Your task to perform on an android device: turn on wifi Image 0: 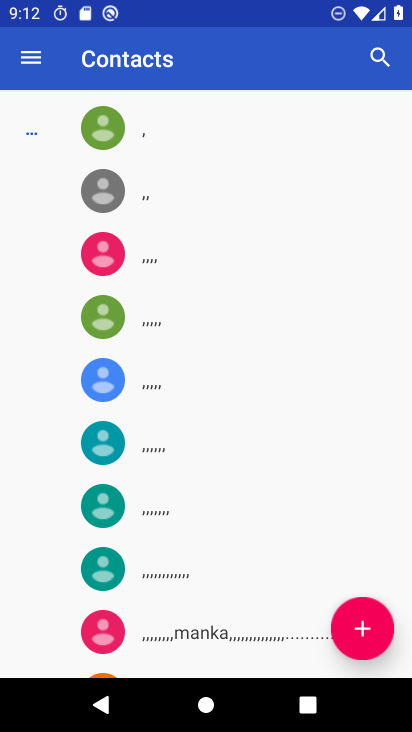
Step 0: press home button
Your task to perform on an android device: turn on wifi Image 1: 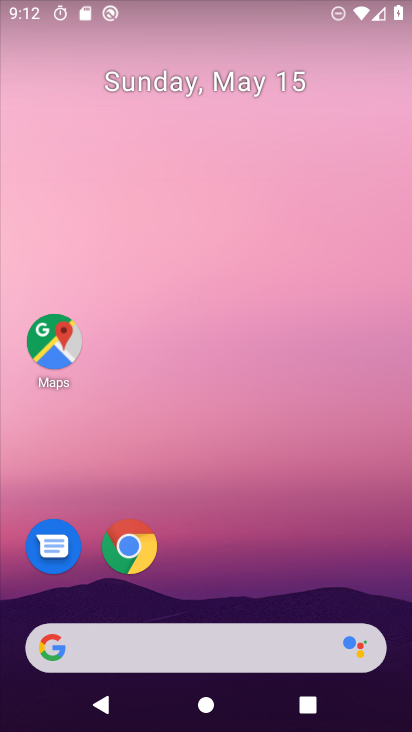
Step 1: drag from (226, 507) to (238, 24)
Your task to perform on an android device: turn on wifi Image 2: 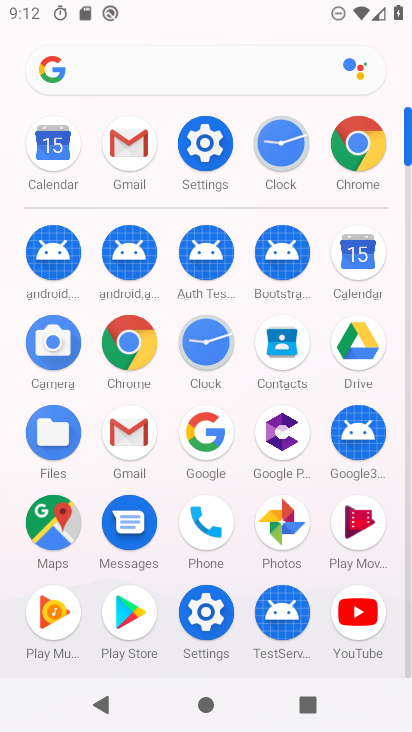
Step 2: click (203, 138)
Your task to perform on an android device: turn on wifi Image 3: 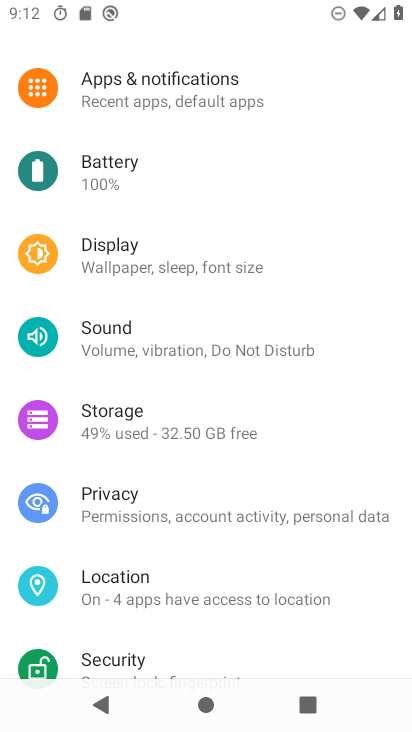
Step 3: drag from (211, 202) to (269, 589)
Your task to perform on an android device: turn on wifi Image 4: 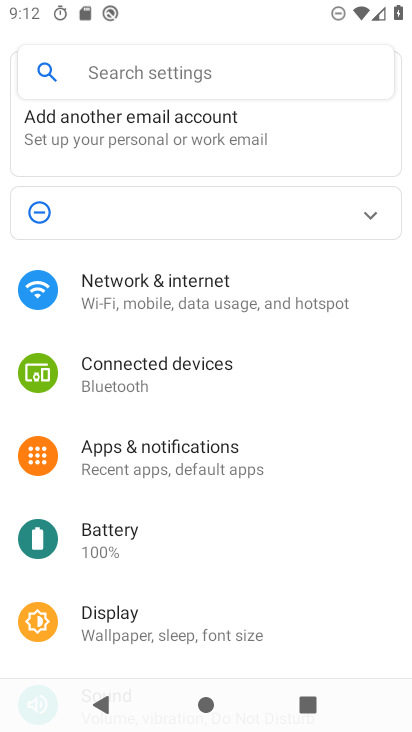
Step 4: click (210, 290)
Your task to perform on an android device: turn on wifi Image 5: 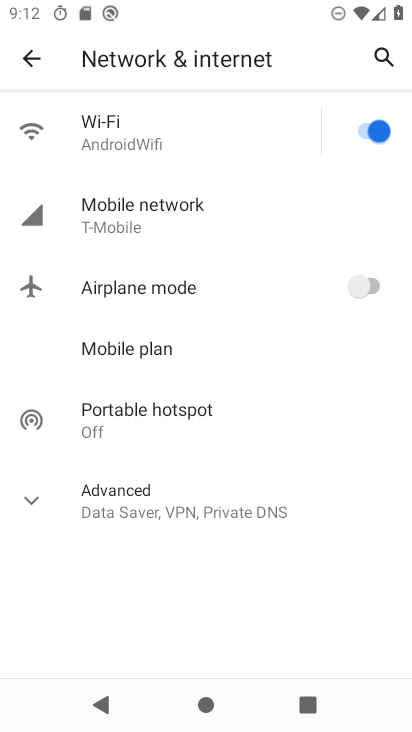
Step 5: task complete